Your task to perform on an android device: Show me the alarms in the clock app Image 0: 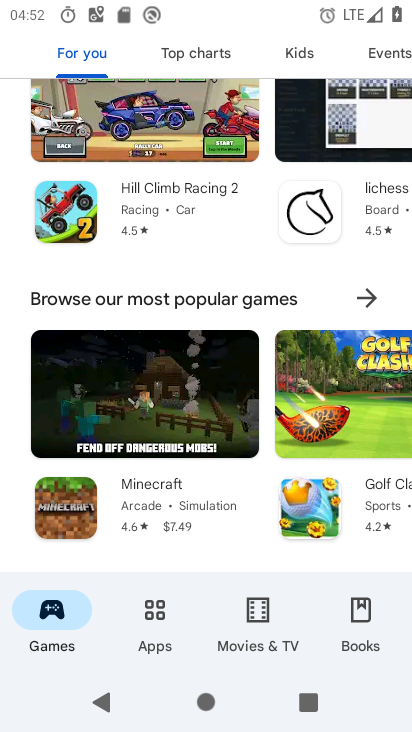
Step 0: press back button
Your task to perform on an android device: Show me the alarms in the clock app Image 1: 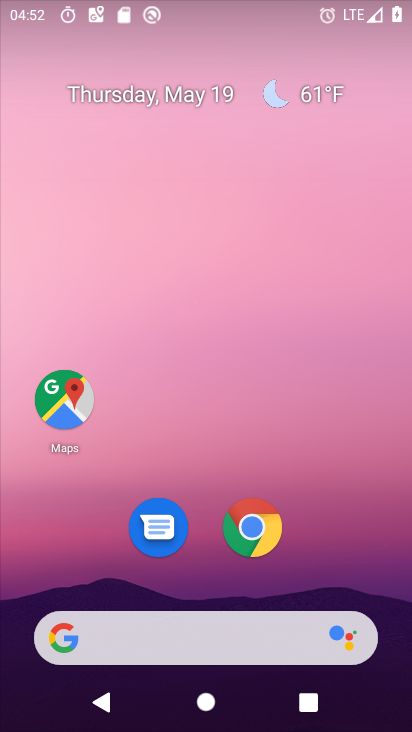
Step 1: drag from (195, 419) to (246, 6)
Your task to perform on an android device: Show me the alarms in the clock app Image 2: 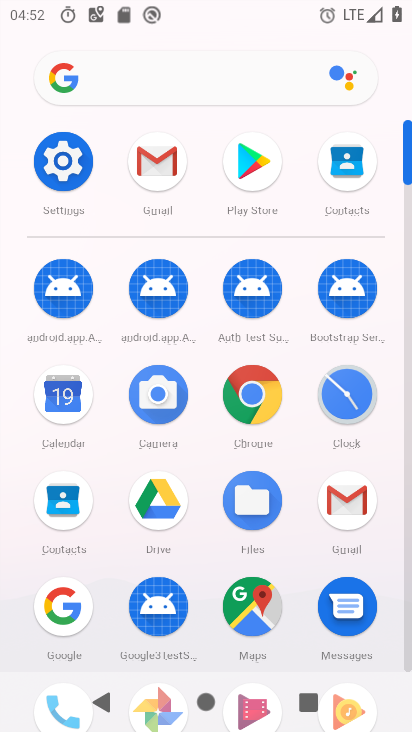
Step 2: click (346, 414)
Your task to perform on an android device: Show me the alarms in the clock app Image 3: 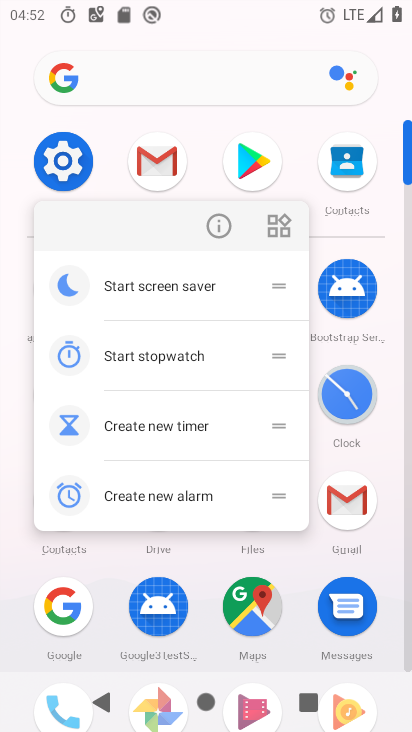
Step 3: click (352, 386)
Your task to perform on an android device: Show me the alarms in the clock app Image 4: 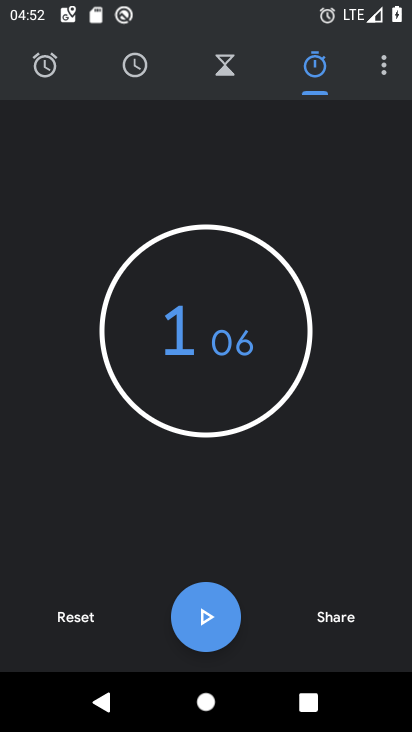
Step 4: click (62, 58)
Your task to perform on an android device: Show me the alarms in the clock app Image 5: 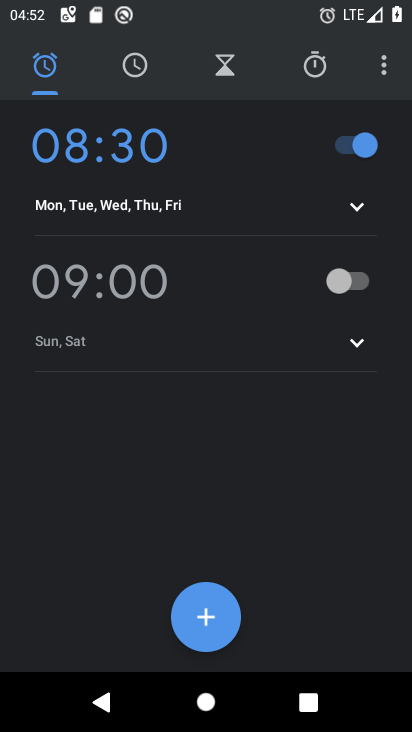
Step 5: task complete